Your task to perform on an android device: Go to battery settings Image 0: 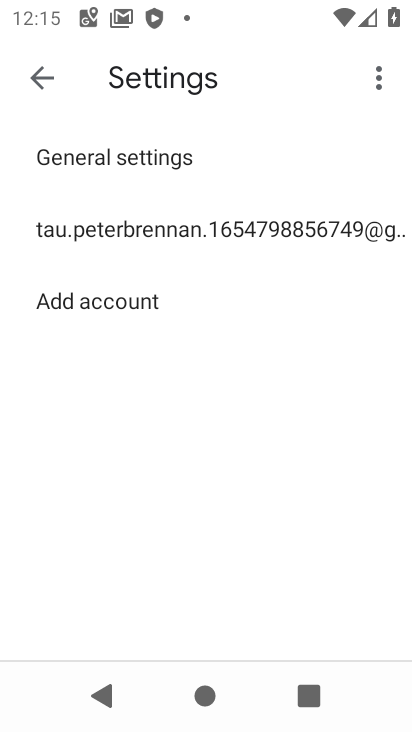
Step 0: press back button
Your task to perform on an android device: Go to battery settings Image 1: 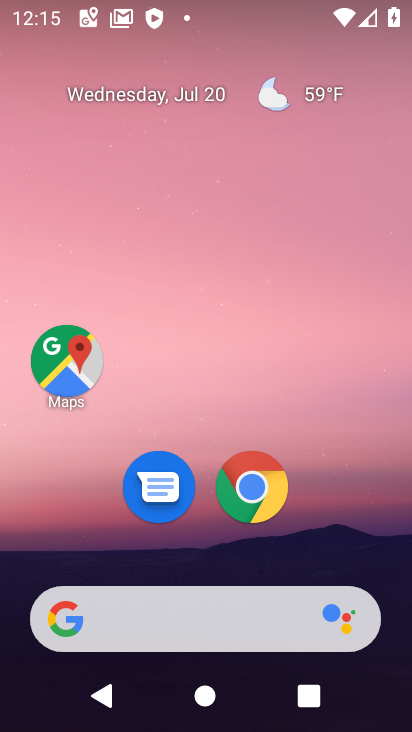
Step 1: drag from (84, 543) to (145, 34)
Your task to perform on an android device: Go to battery settings Image 2: 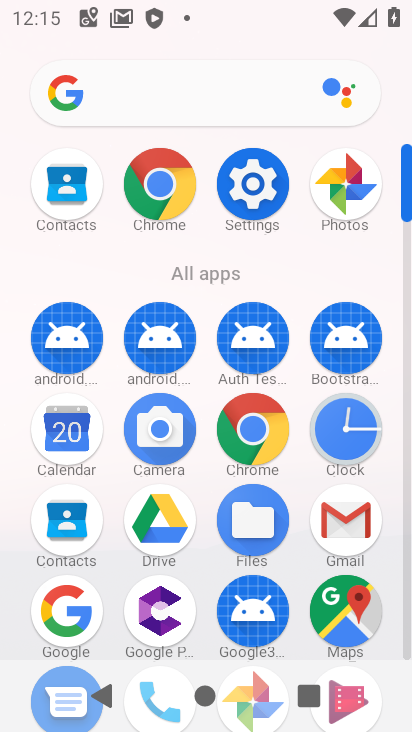
Step 2: click (262, 173)
Your task to perform on an android device: Go to battery settings Image 3: 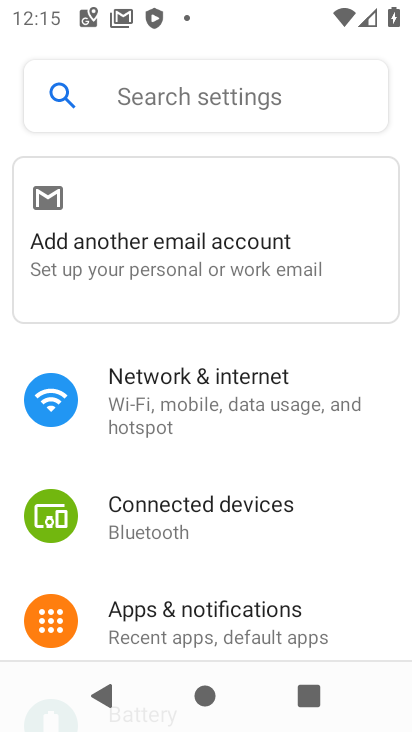
Step 3: drag from (150, 557) to (243, 119)
Your task to perform on an android device: Go to battery settings Image 4: 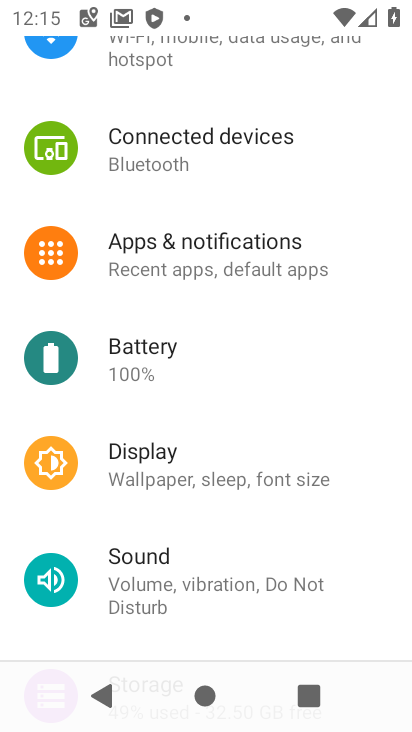
Step 4: click (132, 364)
Your task to perform on an android device: Go to battery settings Image 5: 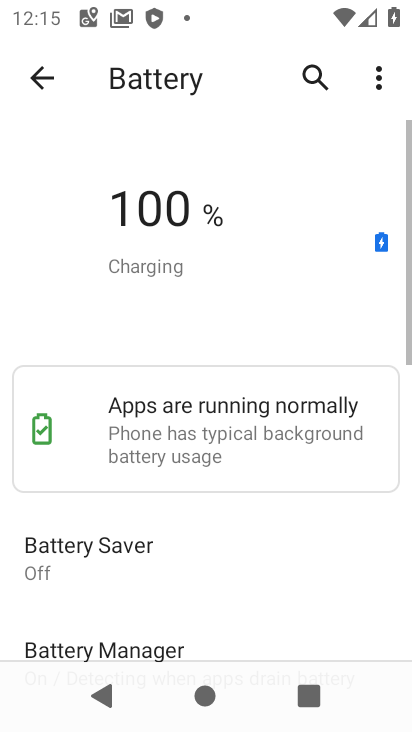
Step 5: task complete